Your task to perform on an android device: Go to settings Image 0: 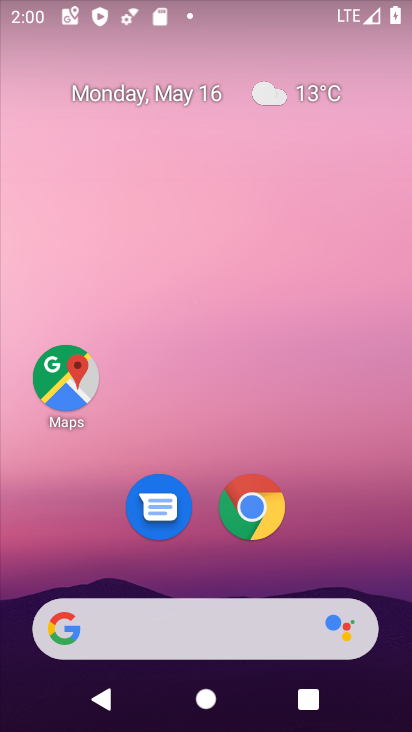
Step 0: drag from (349, 546) to (230, 97)
Your task to perform on an android device: Go to settings Image 1: 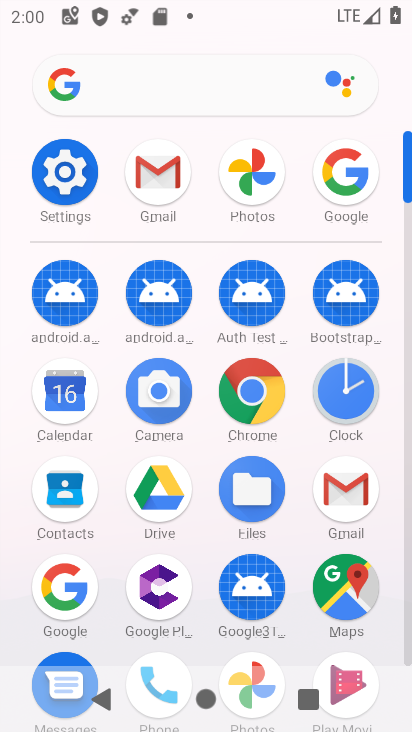
Step 1: click (82, 174)
Your task to perform on an android device: Go to settings Image 2: 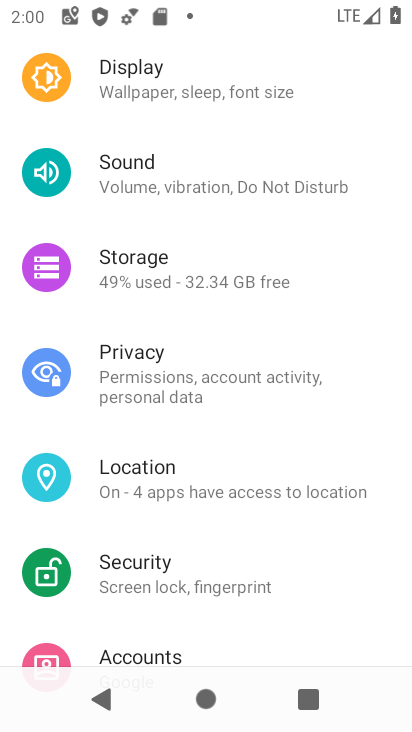
Step 2: task complete